Your task to perform on an android device: Do I have any events this weekend? Image 0: 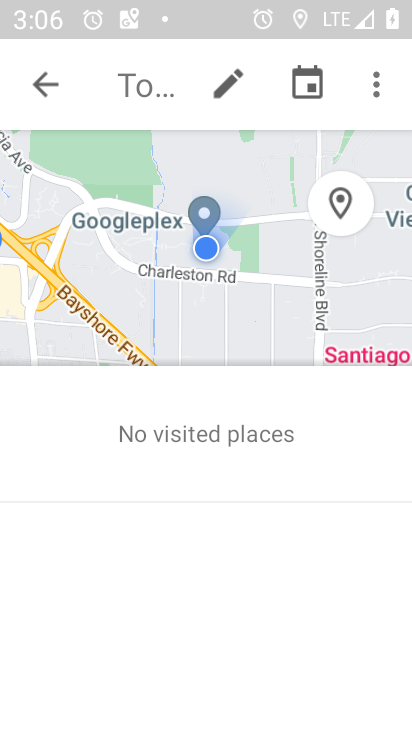
Step 0: press back button
Your task to perform on an android device: Do I have any events this weekend? Image 1: 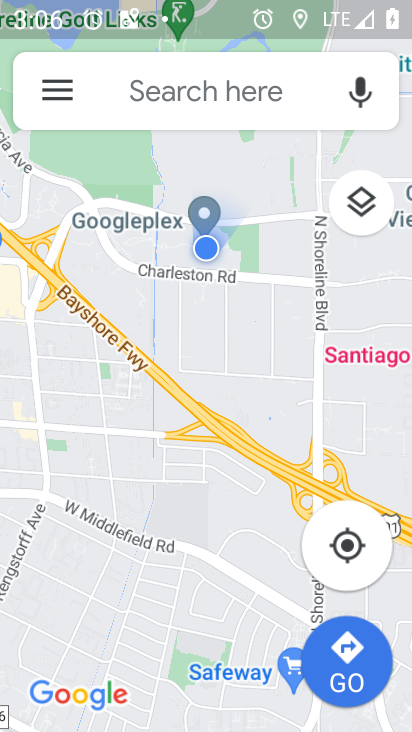
Step 1: press home button
Your task to perform on an android device: Do I have any events this weekend? Image 2: 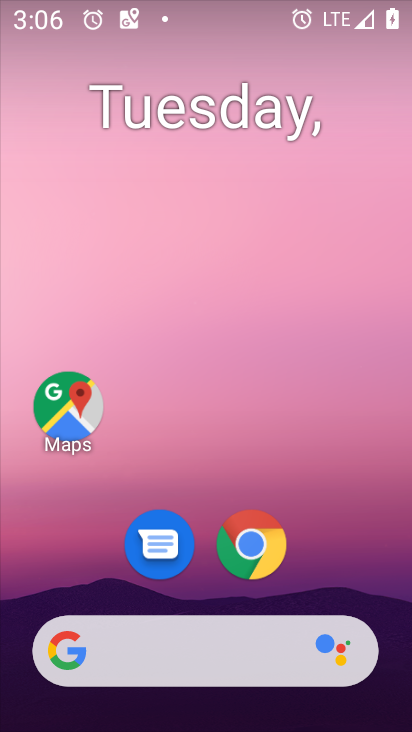
Step 2: drag from (344, 593) to (260, 47)
Your task to perform on an android device: Do I have any events this weekend? Image 3: 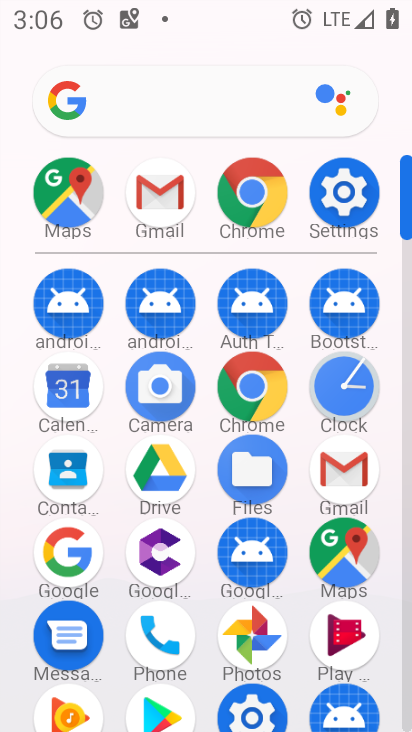
Step 3: drag from (12, 473) to (12, 173)
Your task to perform on an android device: Do I have any events this weekend? Image 4: 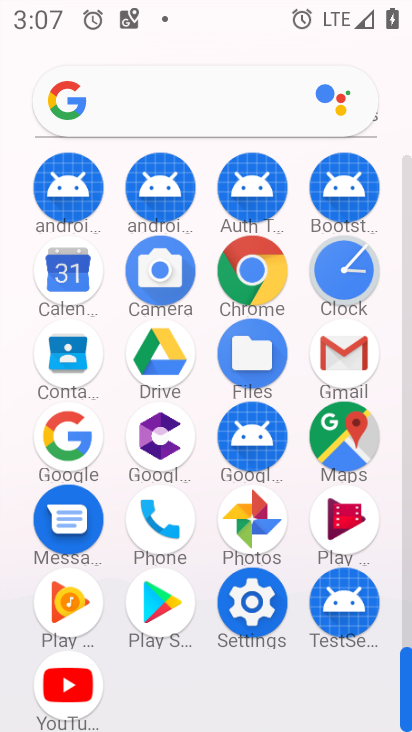
Step 4: drag from (28, 575) to (7, 147)
Your task to perform on an android device: Do I have any events this weekend? Image 5: 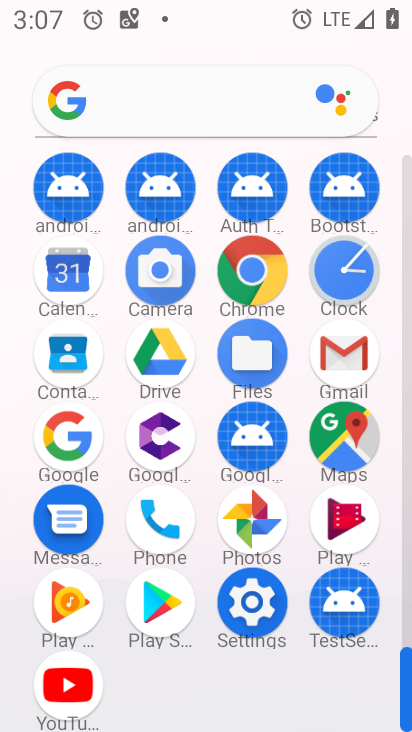
Step 5: drag from (8, 572) to (12, 221)
Your task to perform on an android device: Do I have any events this weekend? Image 6: 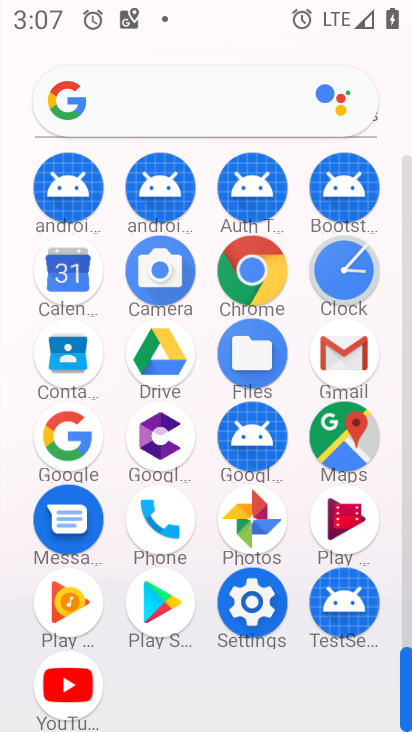
Step 6: drag from (13, 173) to (17, 506)
Your task to perform on an android device: Do I have any events this weekend? Image 7: 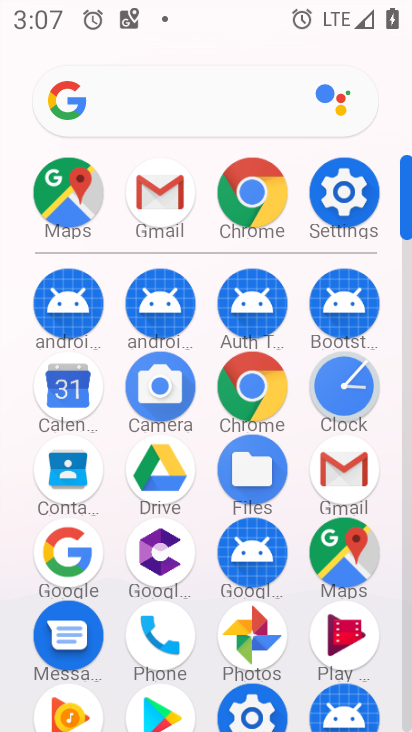
Step 7: drag from (11, 494) to (29, 116)
Your task to perform on an android device: Do I have any events this weekend? Image 8: 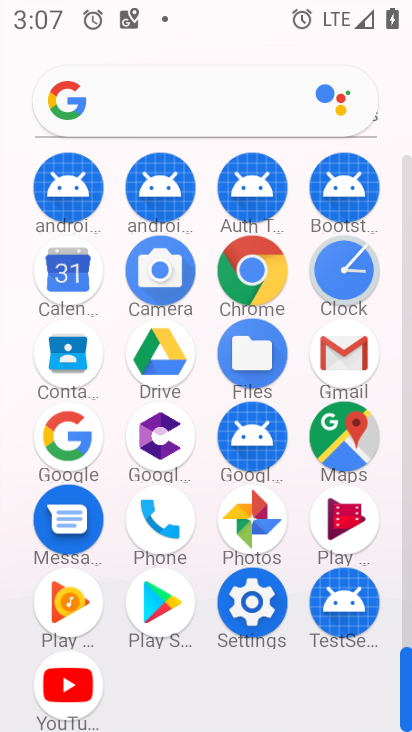
Step 8: click (63, 258)
Your task to perform on an android device: Do I have any events this weekend? Image 9: 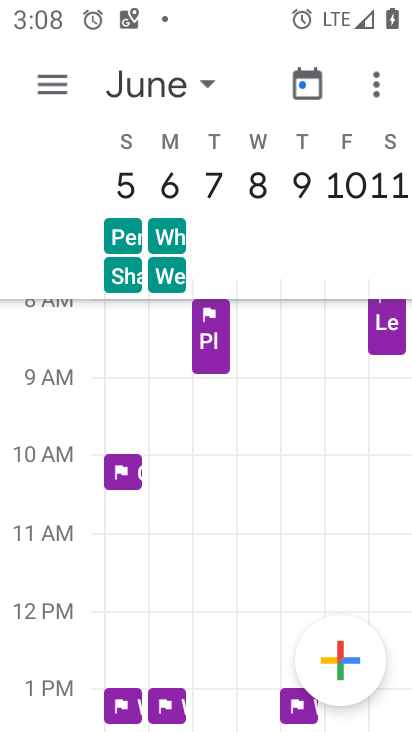
Step 9: click (304, 81)
Your task to perform on an android device: Do I have any events this weekend? Image 10: 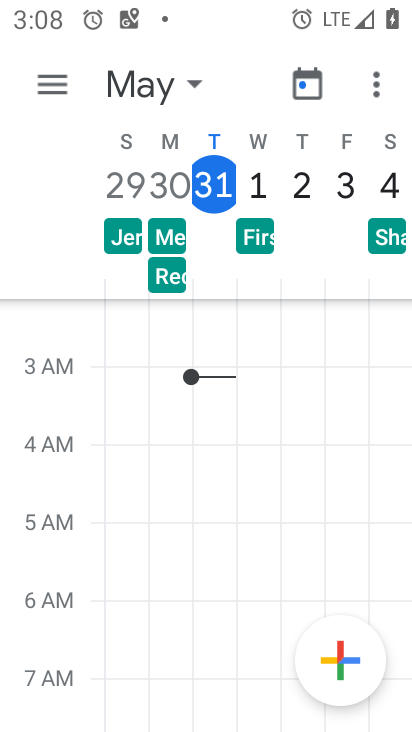
Step 10: task complete